Your task to perform on an android device: open app "Google Duo" (install if not already installed) Image 0: 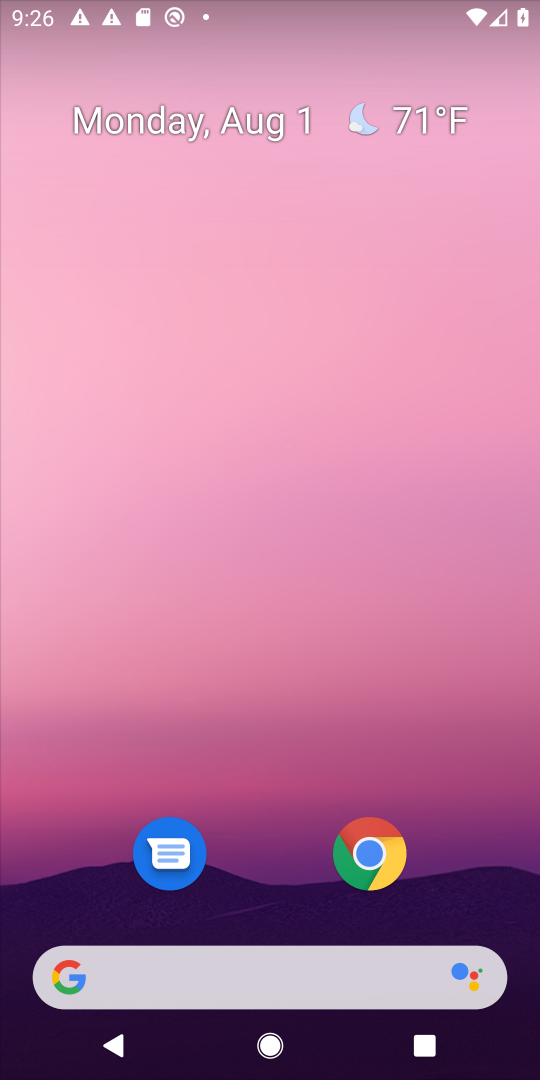
Step 0: drag from (232, 863) to (30, 1)
Your task to perform on an android device: open app "Google Duo" (install if not already installed) Image 1: 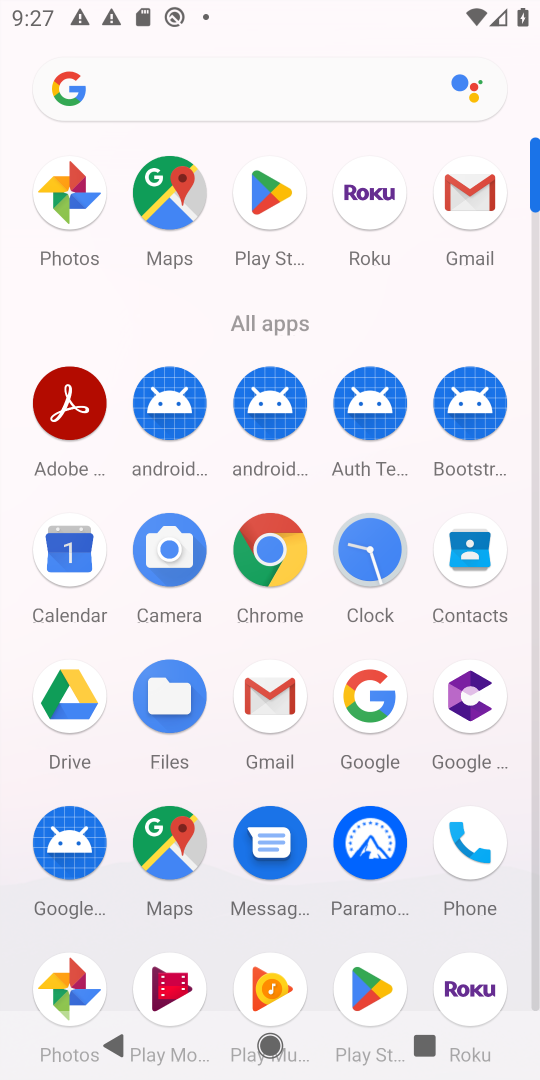
Step 1: click (282, 166)
Your task to perform on an android device: open app "Google Duo" (install if not already installed) Image 2: 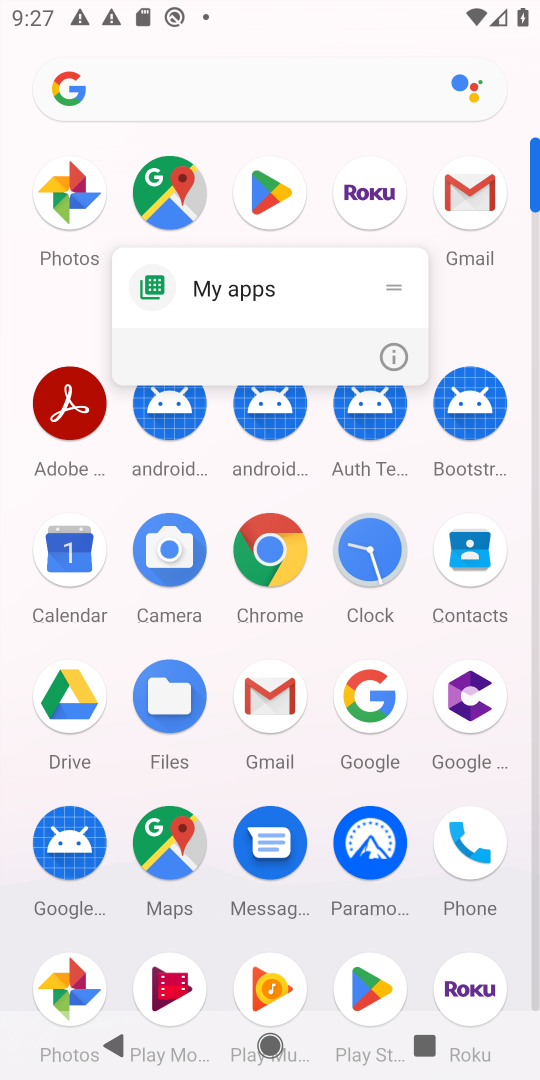
Step 2: click (399, 359)
Your task to perform on an android device: open app "Google Duo" (install if not already installed) Image 3: 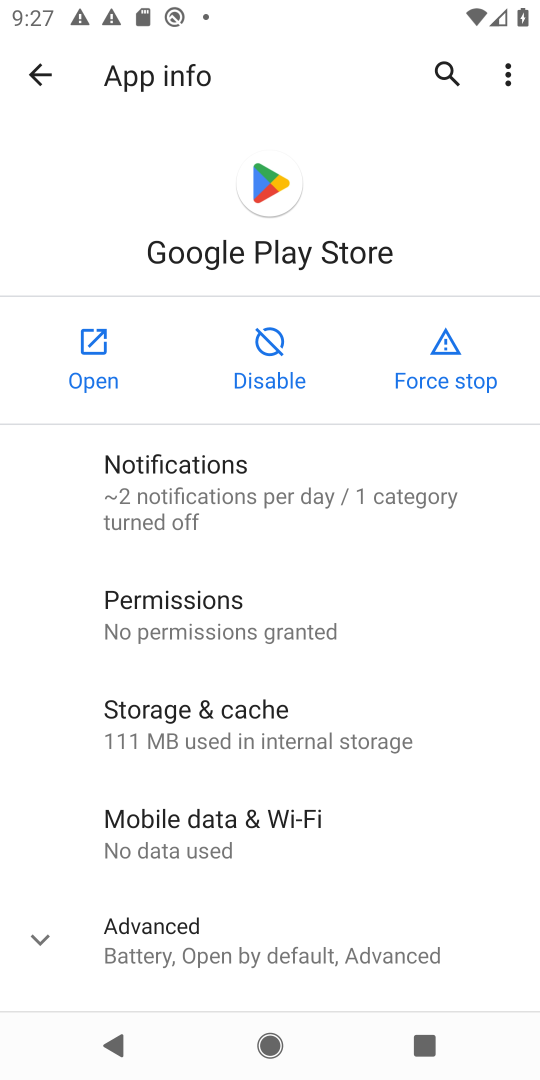
Step 3: click (94, 355)
Your task to perform on an android device: open app "Google Duo" (install if not already installed) Image 4: 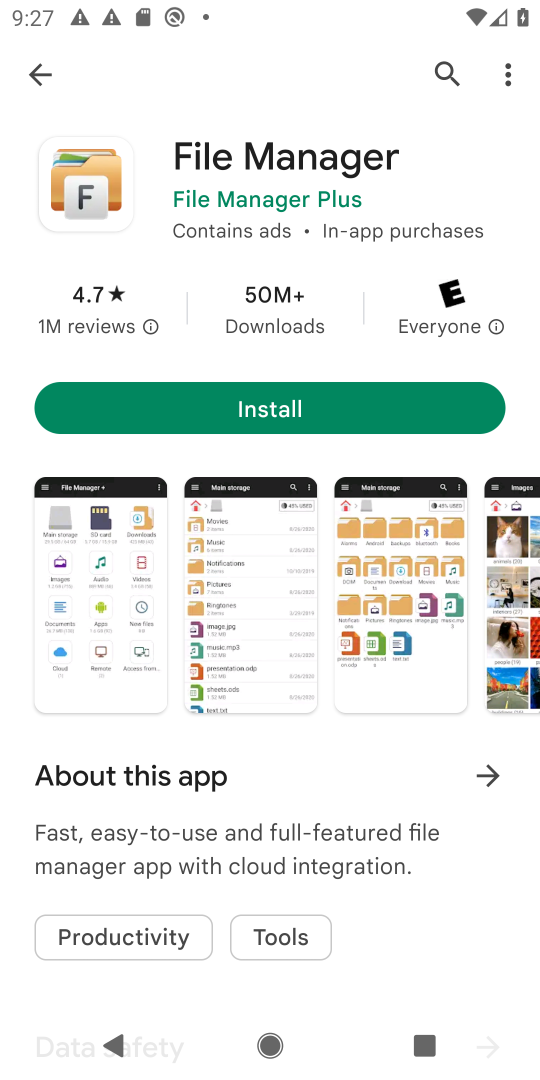
Step 4: click (232, 417)
Your task to perform on an android device: open app "Google Duo" (install if not already installed) Image 5: 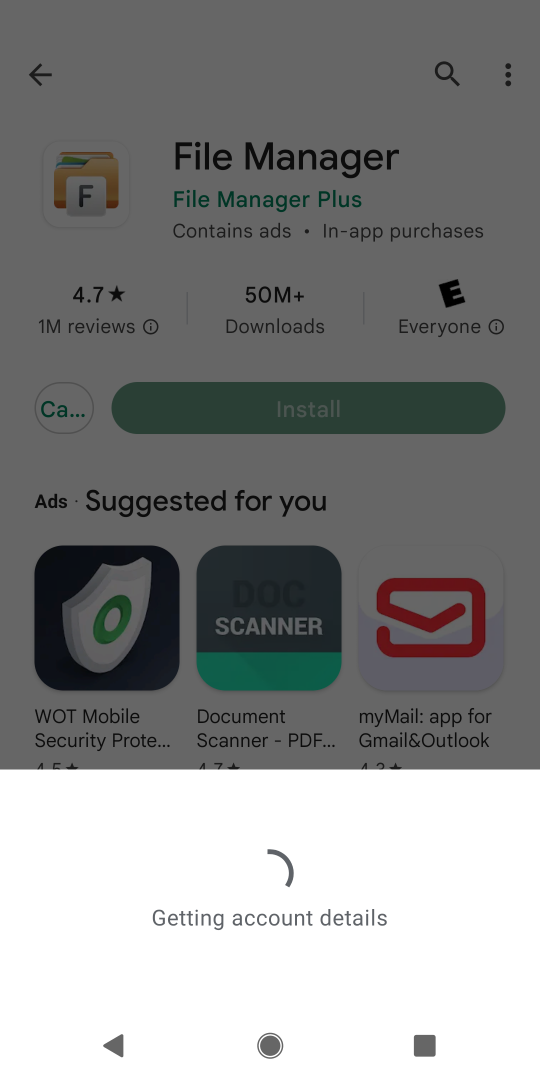
Step 5: click (129, 425)
Your task to perform on an android device: open app "Google Duo" (install if not already installed) Image 6: 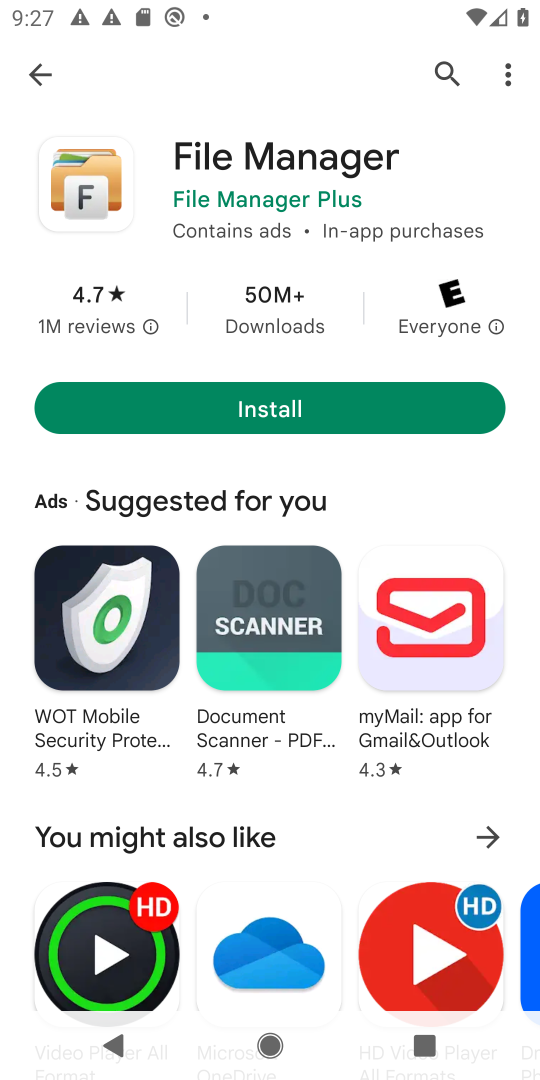
Step 6: click (428, 94)
Your task to perform on an android device: open app "Google Duo" (install if not already installed) Image 7: 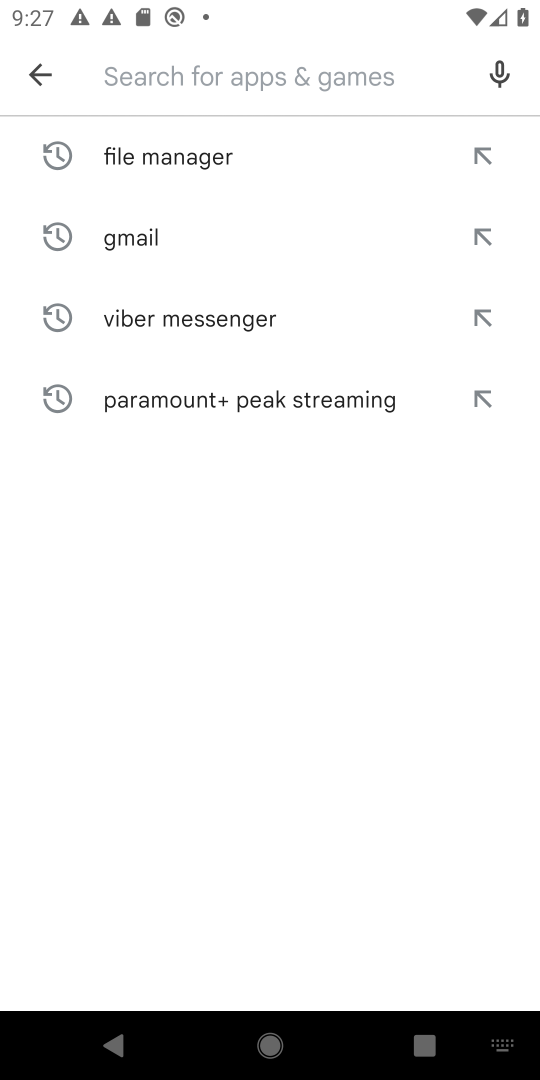
Step 7: type "Google Duo"
Your task to perform on an android device: open app "Google Duo" (install if not already installed) Image 8: 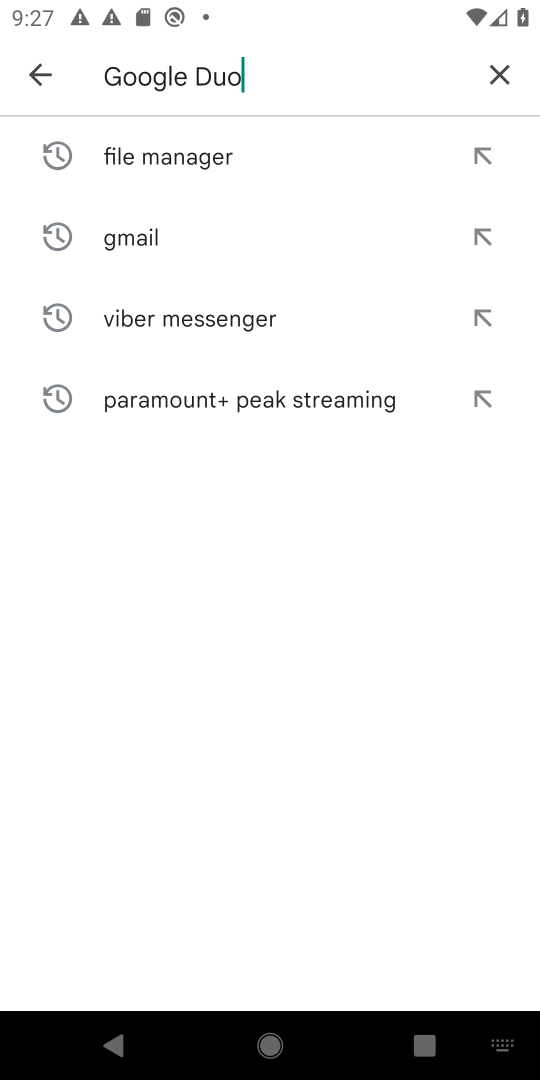
Step 8: type ""
Your task to perform on an android device: open app "Google Duo" (install if not already installed) Image 9: 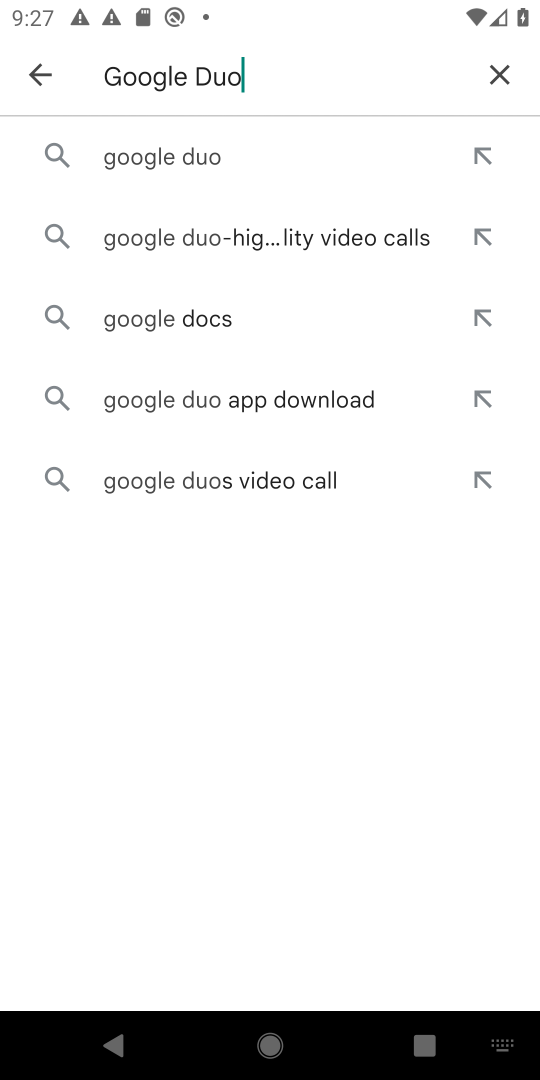
Step 9: click (186, 164)
Your task to perform on an android device: open app "Google Duo" (install if not already installed) Image 10: 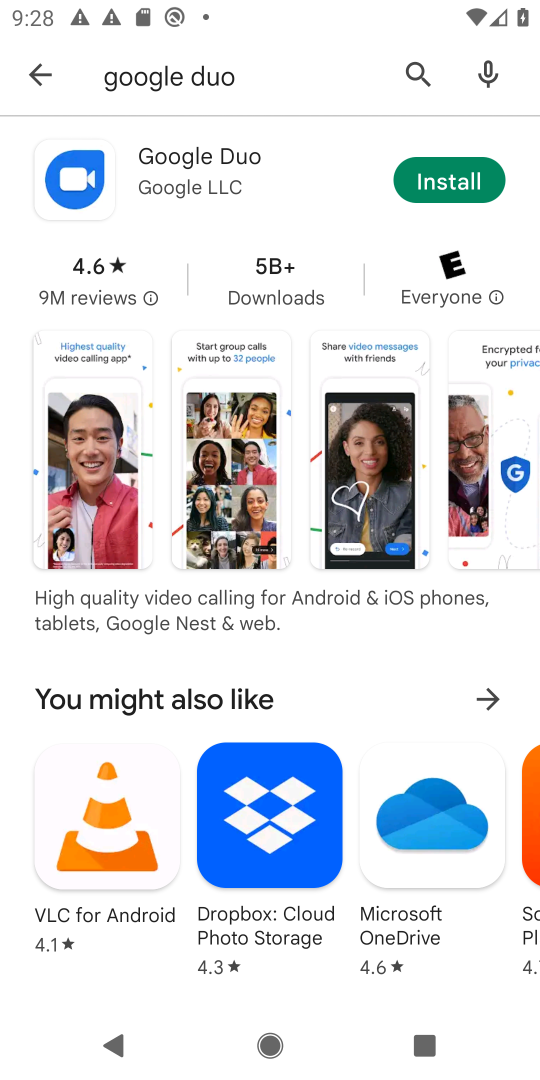
Step 10: click (226, 168)
Your task to perform on an android device: open app "Google Duo" (install if not already installed) Image 11: 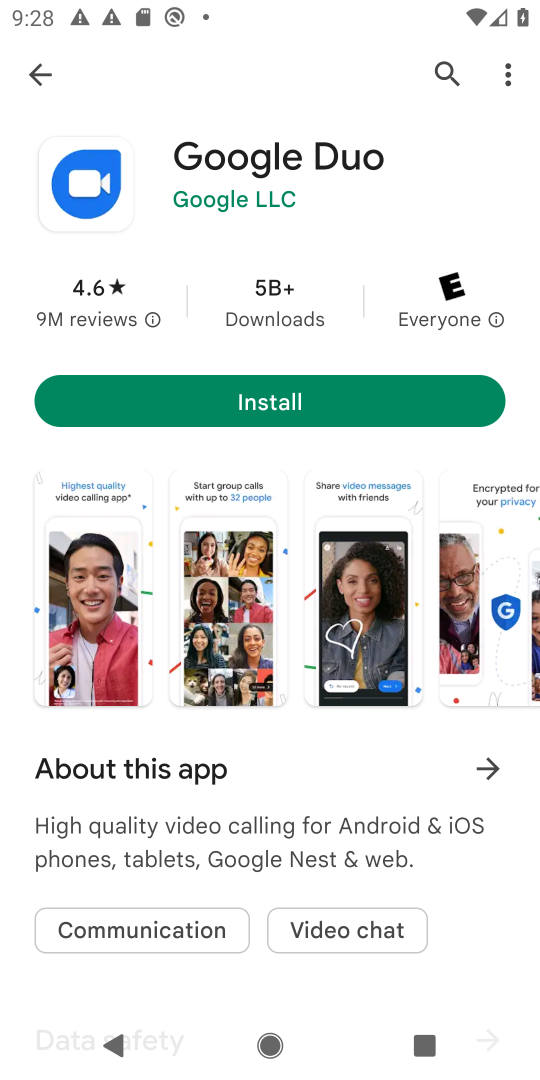
Step 11: click (258, 396)
Your task to perform on an android device: open app "Google Duo" (install if not already installed) Image 12: 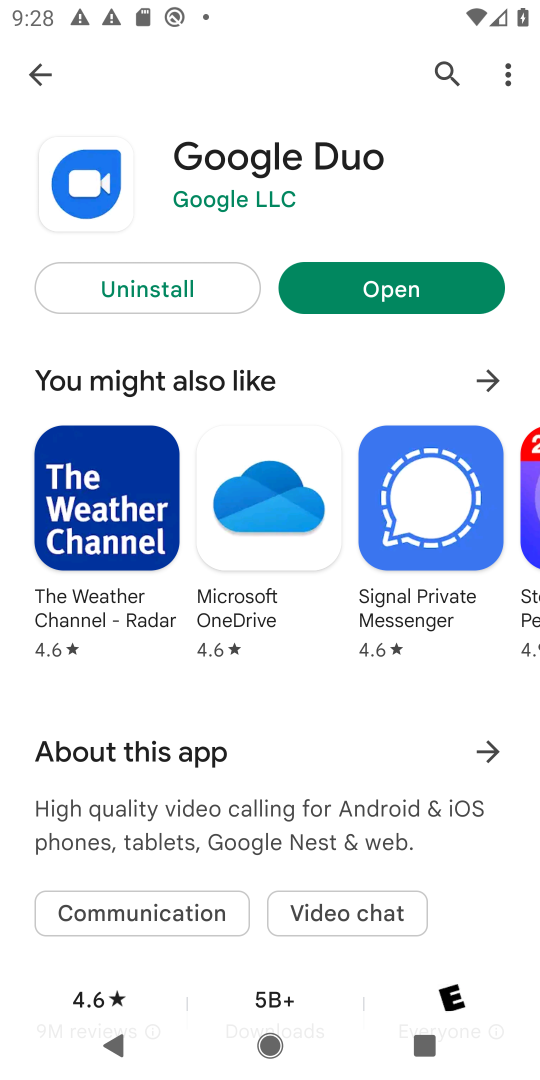
Step 12: click (291, 176)
Your task to perform on an android device: open app "Google Duo" (install if not already installed) Image 13: 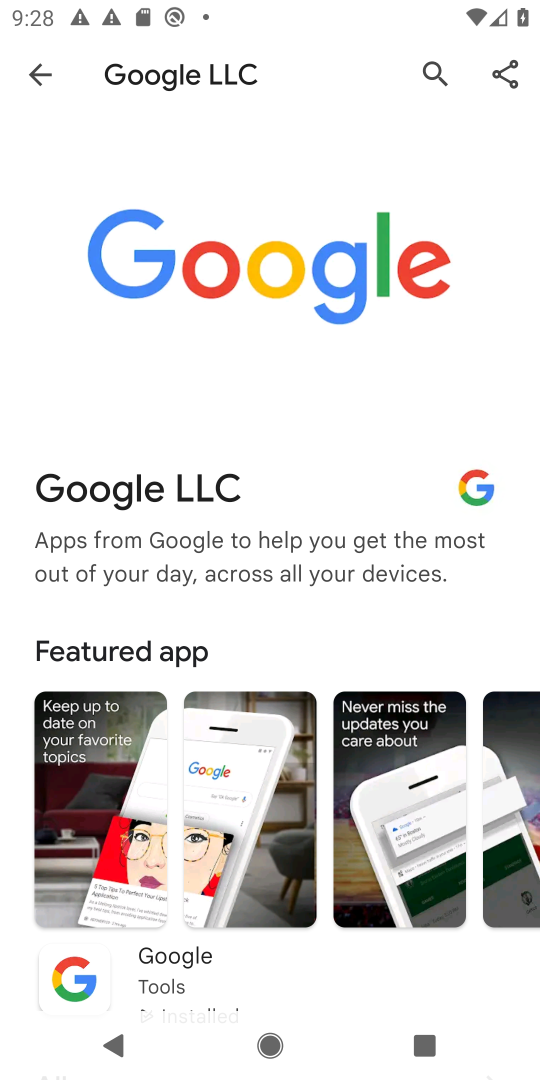
Step 13: click (41, 67)
Your task to perform on an android device: open app "Google Duo" (install if not already installed) Image 14: 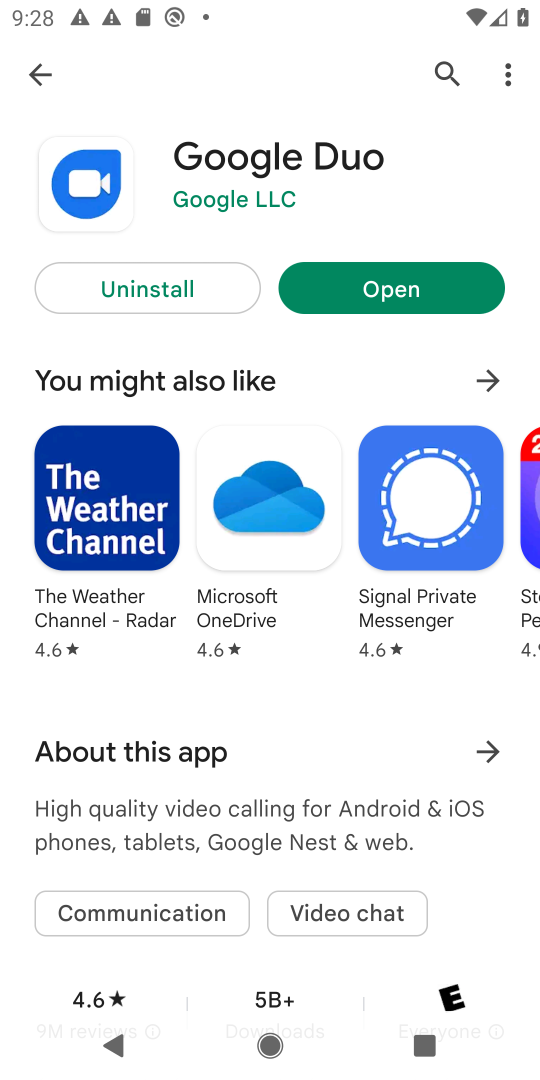
Step 14: click (403, 309)
Your task to perform on an android device: open app "Google Duo" (install if not already installed) Image 15: 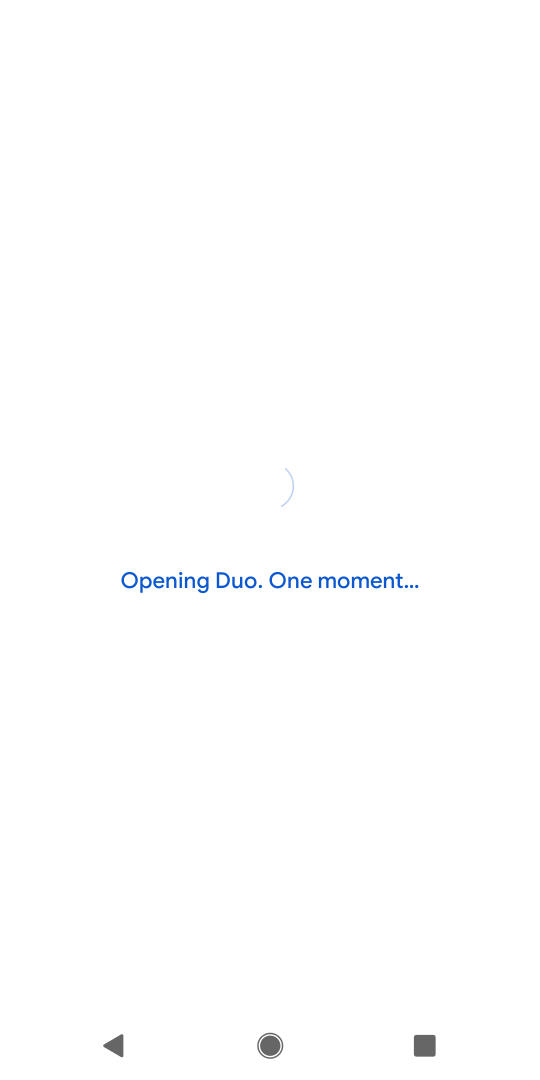
Step 15: drag from (262, 752) to (368, 401)
Your task to perform on an android device: open app "Google Duo" (install if not already installed) Image 16: 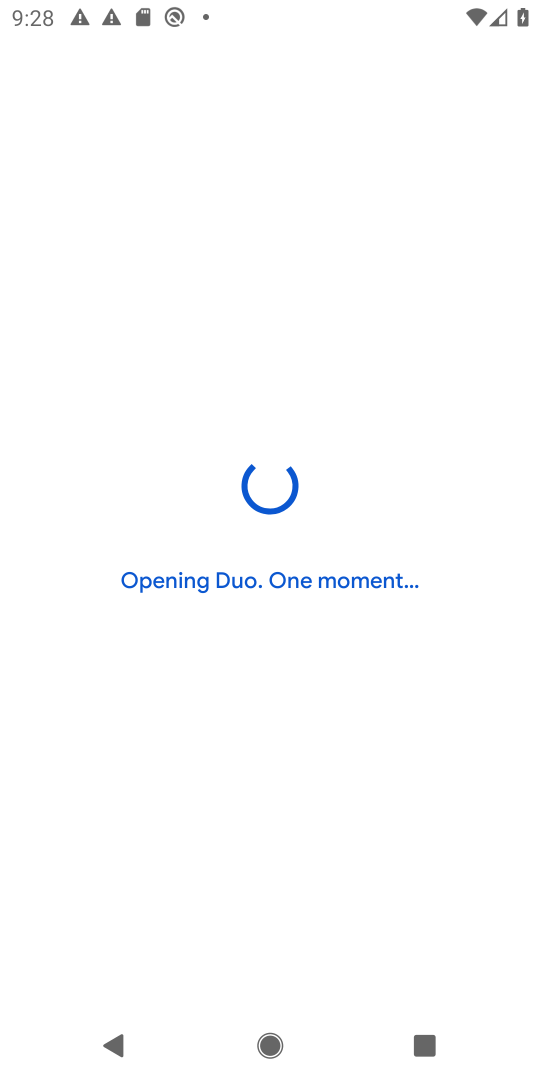
Step 16: drag from (290, 346) to (323, 840)
Your task to perform on an android device: open app "Google Duo" (install if not already installed) Image 17: 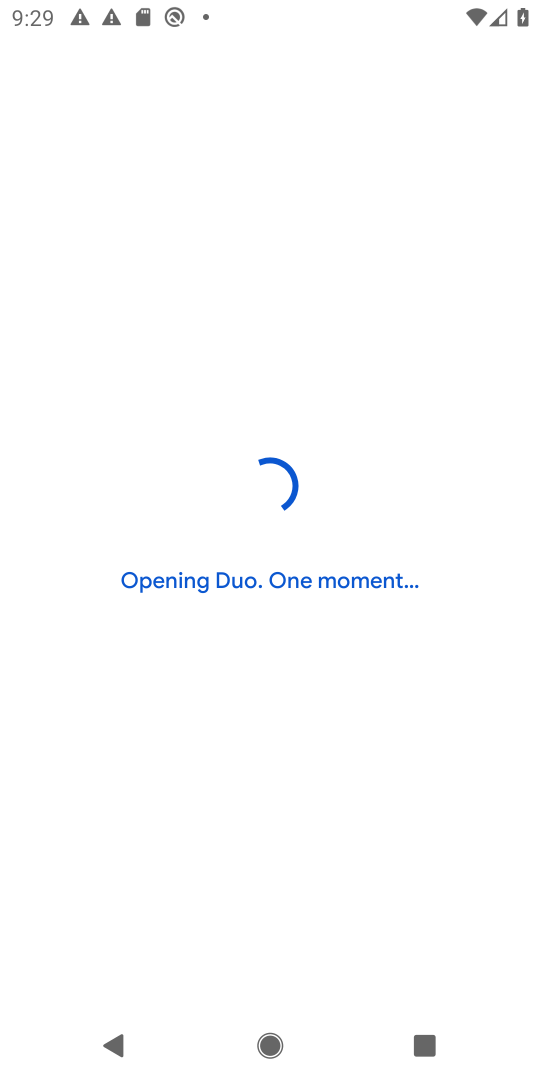
Step 17: click (331, 251)
Your task to perform on an android device: open app "Google Duo" (install if not already installed) Image 18: 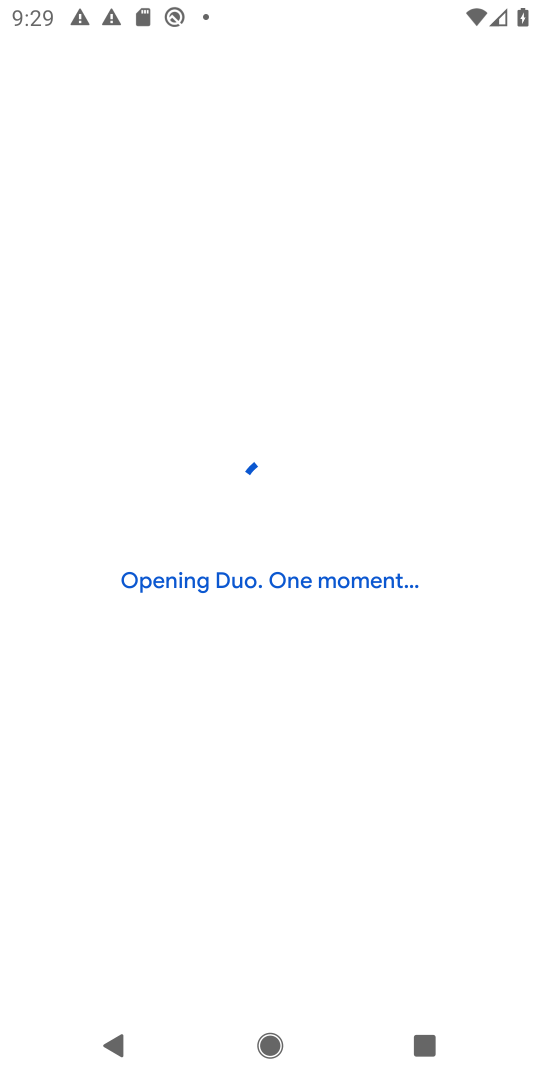
Step 18: task complete